Your task to perform on an android device: find photos in the google photos app Image 0: 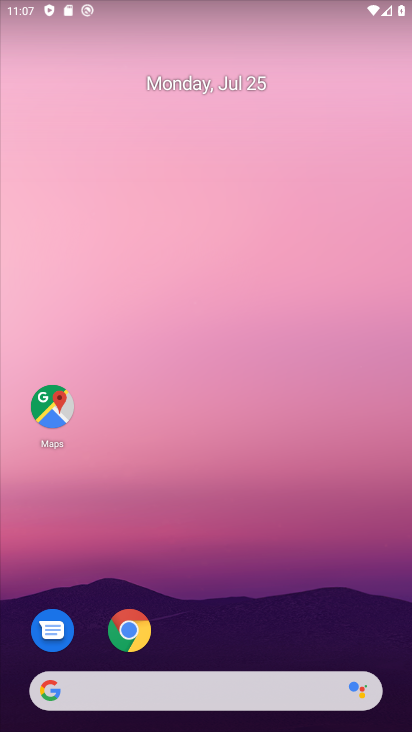
Step 0: drag from (288, 381) to (259, 39)
Your task to perform on an android device: find photos in the google photos app Image 1: 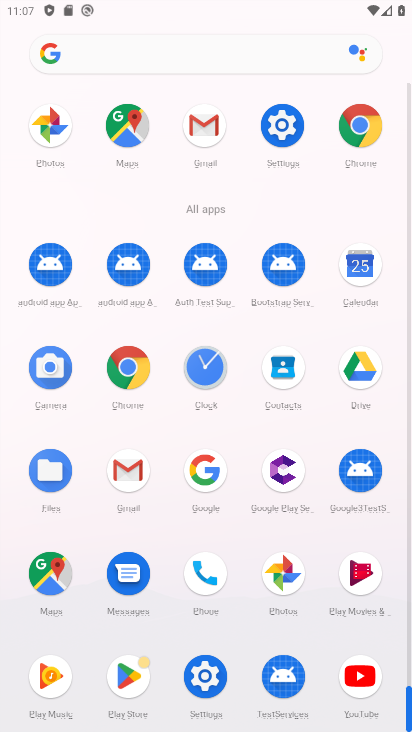
Step 1: click (287, 567)
Your task to perform on an android device: find photos in the google photos app Image 2: 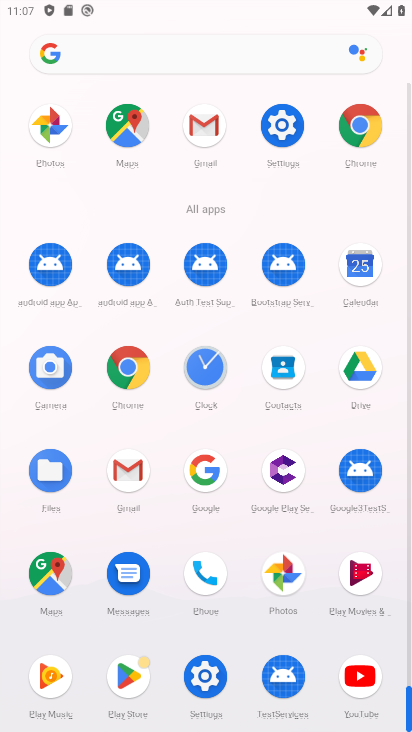
Step 2: click (290, 565)
Your task to perform on an android device: find photos in the google photos app Image 3: 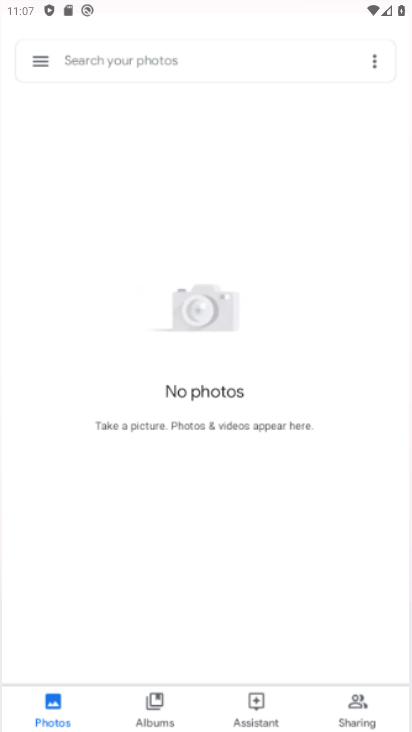
Step 3: click (294, 565)
Your task to perform on an android device: find photos in the google photos app Image 4: 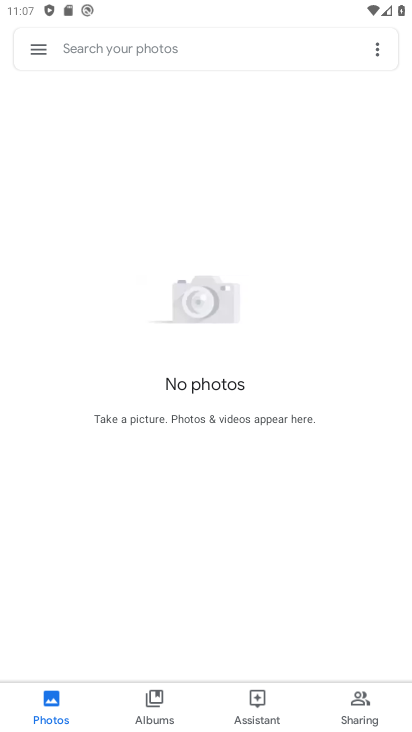
Step 4: task complete